Your task to perform on an android device: set default search engine in the chrome app Image 0: 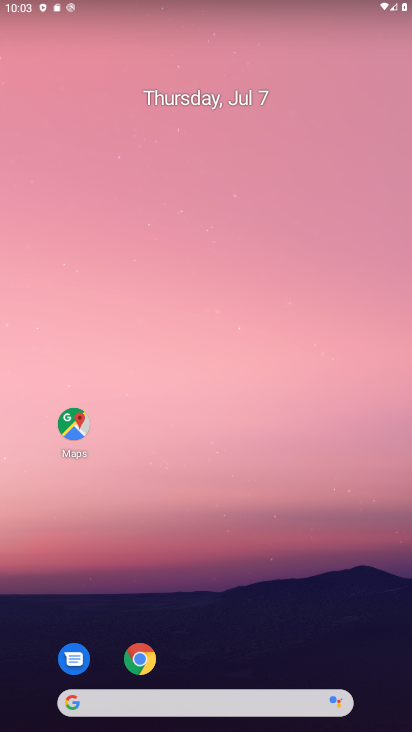
Step 0: drag from (198, 688) to (202, 91)
Your task to perform on an android device: set default search engine in the chrome app Image 1: 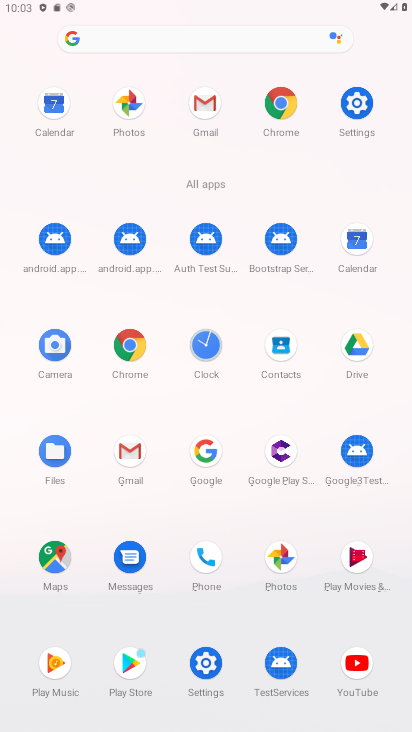
Step 1: click (135, 340)
Your task to perform on an android device: set default search engine in the chrome app Image 2: 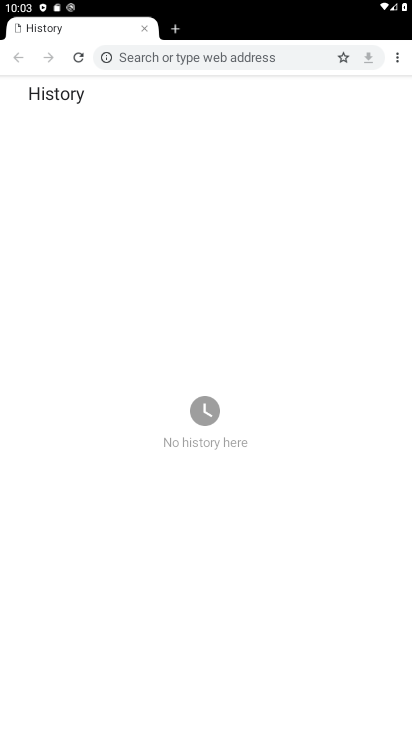
Step 2: drag from (397, 58) to (325, 294)
Your task to perform on an android device: set default search engine in the chrome app Image 3: 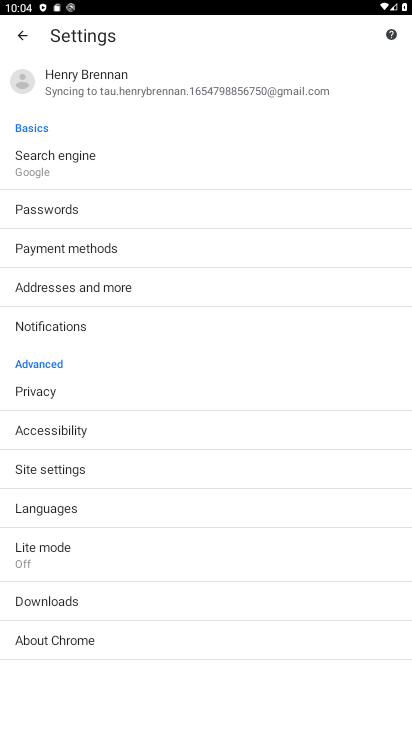
Step 3: click (71, 168)
Your task to perform on an android device: set default search engine in the chrome app Image 4: 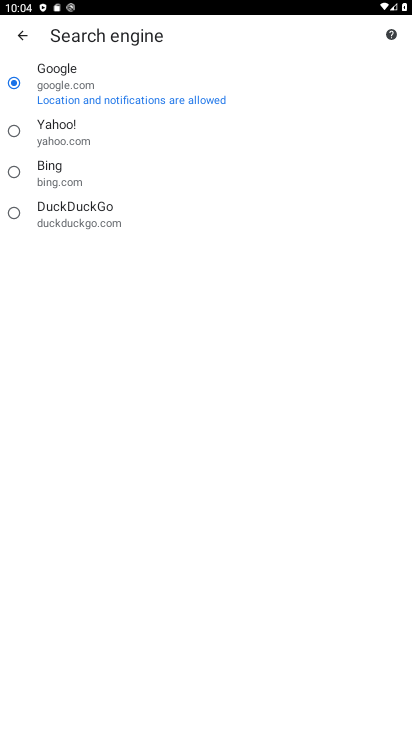
Step 4: click (80, 118)
Your task to perform on an android device: set default search engine in the chrome app Image 5: 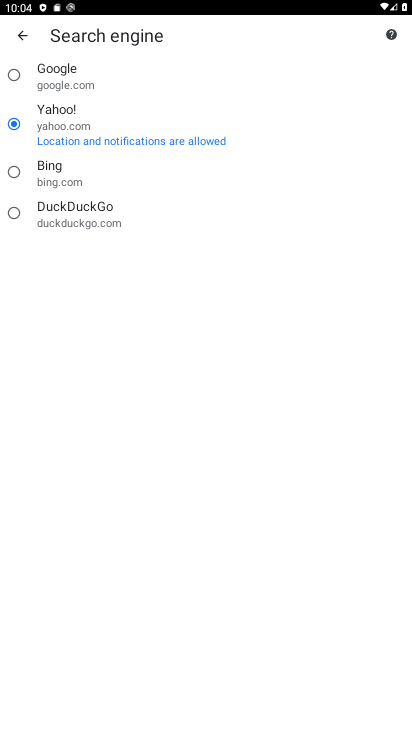
Step 5: task complete